Your task to perform on an android device: clear all cookies in the chrome app Image 0: 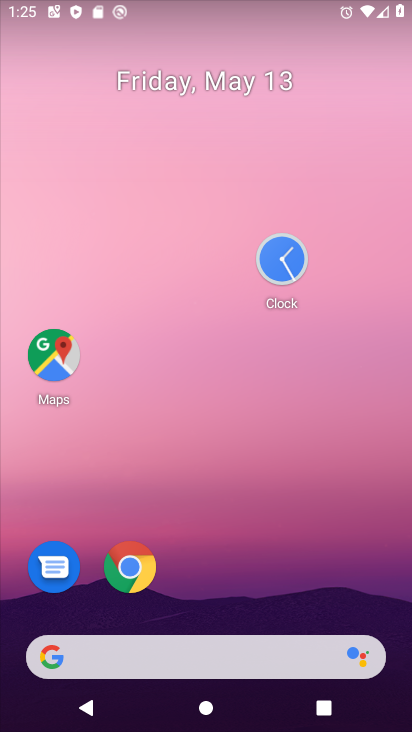
Step 0: click (148, 574)
Your task to perform on an android device: clear all cookies in the chrome app Image 1: 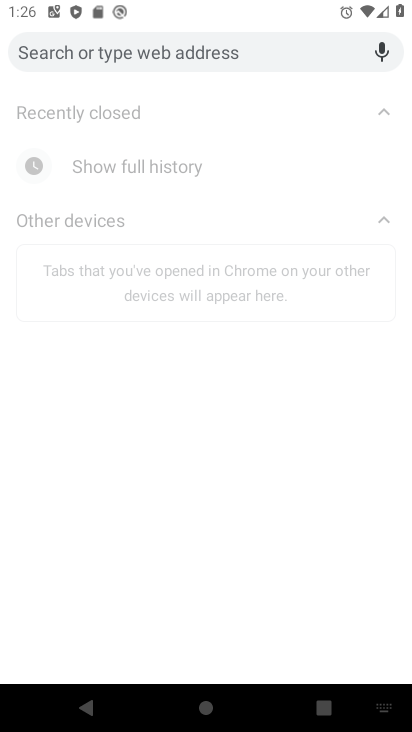
Step 1: press back button
Your task to perform on an android device: clear all cookies in the chrome app Image 2: 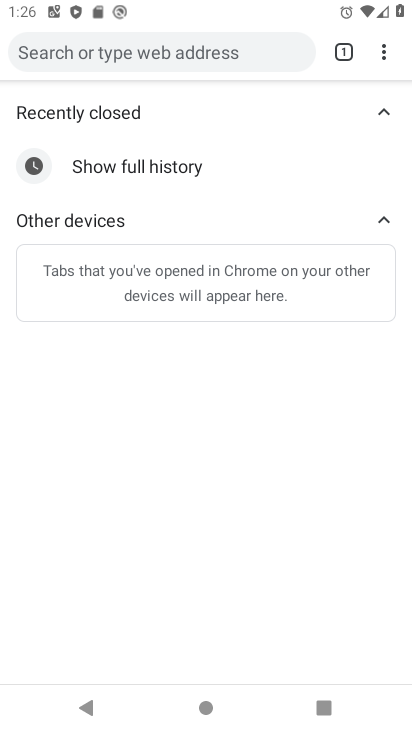
Step 2: click (383, 66)
Your task to perform on an android device: clear all cookies in the chrome app Image 3: 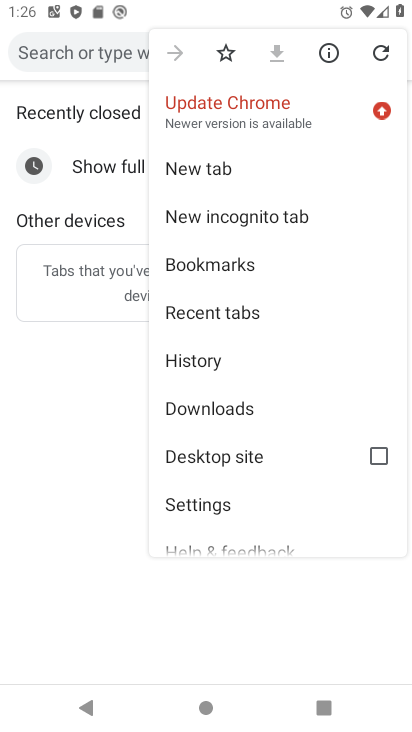
Step 3: click (222, 353)
Your task to perform on an android device: clear all cookies in the chrome app Image 4: 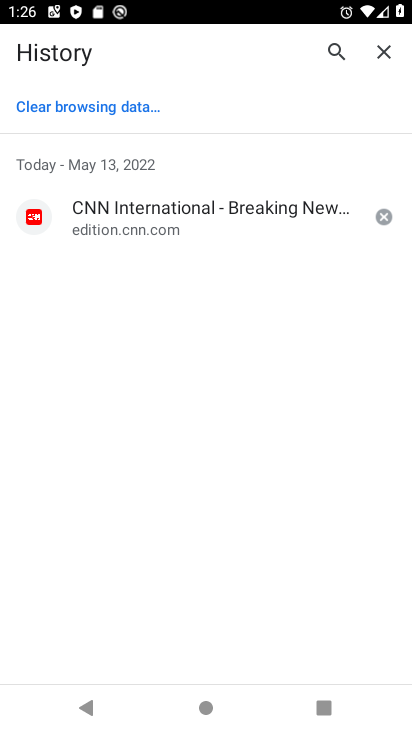
Step 4: click (116, 103)
Your task to perform on an android device: clear all cookies in the chrome app Image 5: 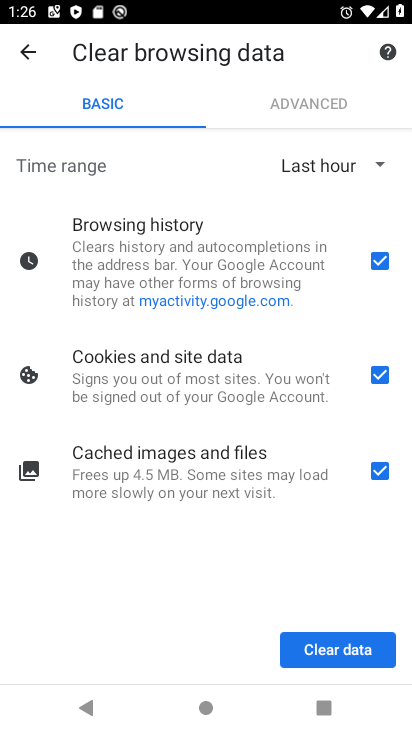
Step 5: click (385, 258)
Your task to perform on an android device: clear all cookies in the chrome app Image 6: 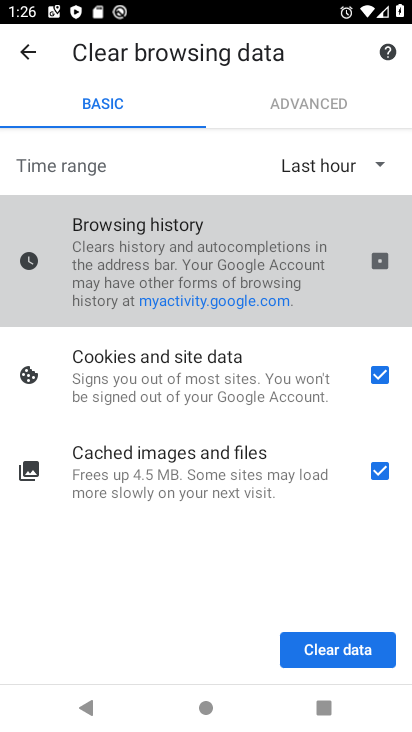
Step 6: click (384, 469)
Your task to perform on an android device: clear all cookies in the chrome app Image 7: 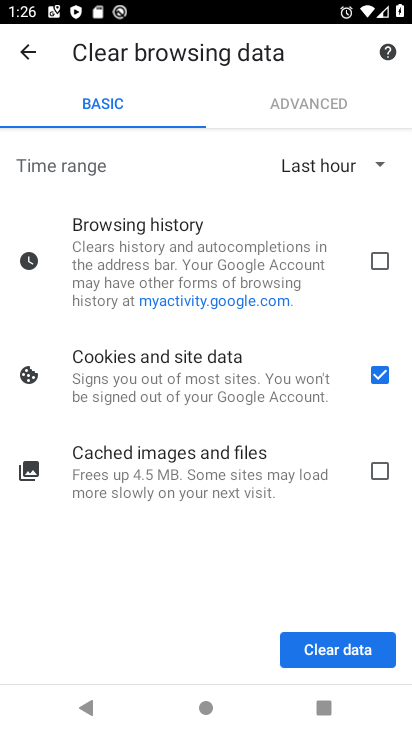
Step 7: click (370, 646)
Your task to perform on an android device: clear all cookies in the chrome app Image 8: 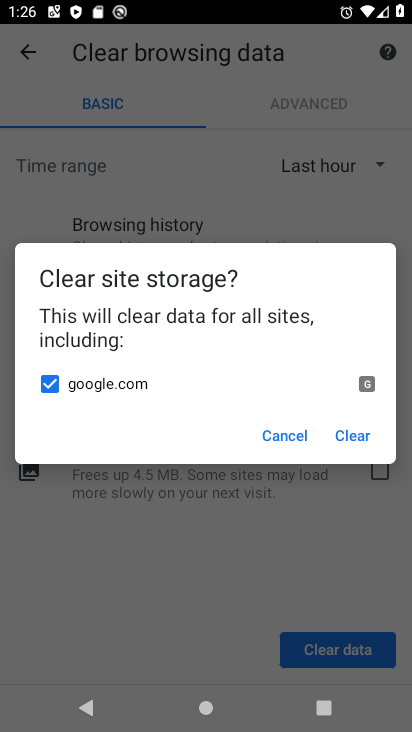
Step 8: click (358, 440)
Your task to perform on an android device: clear all cookies in the chrome app Image 9: 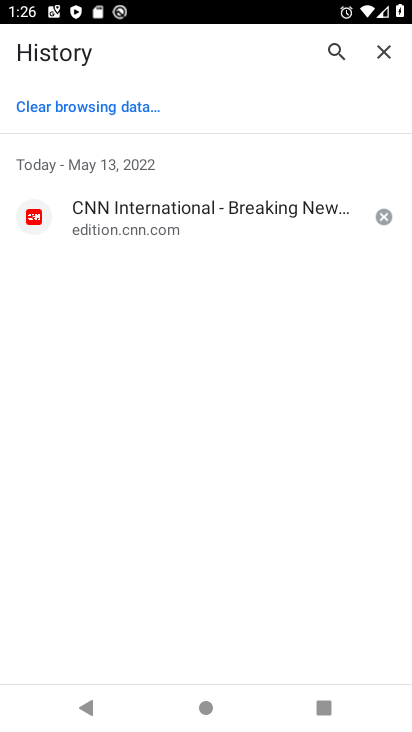
Step 9: task complete